Your task to perform on an android device: What's the weather today? Image 0: 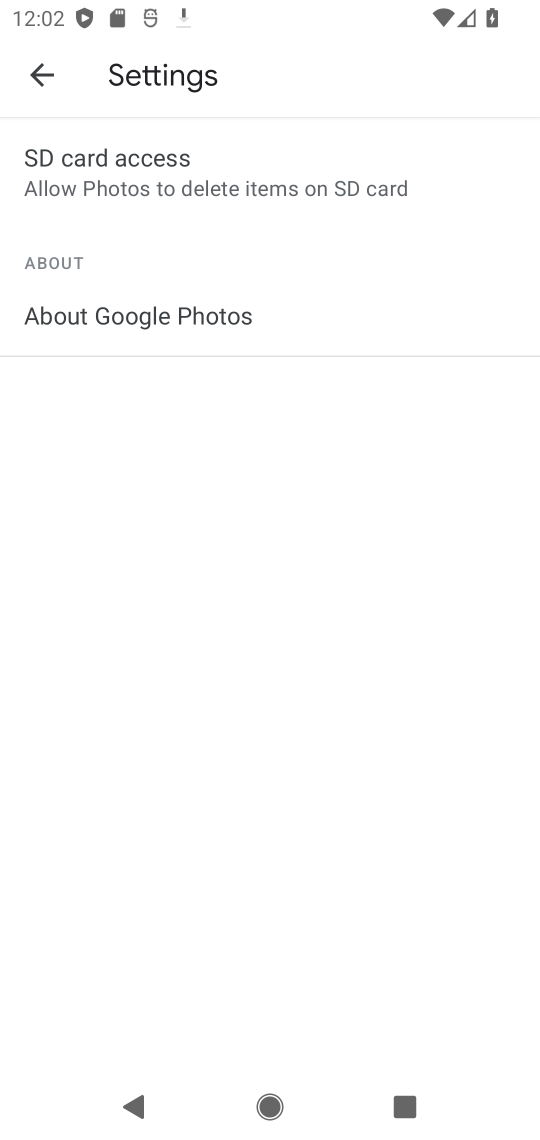
Step 0: click (137, 836)
Your task to perform on an android device: What's the weather today? Image 1: 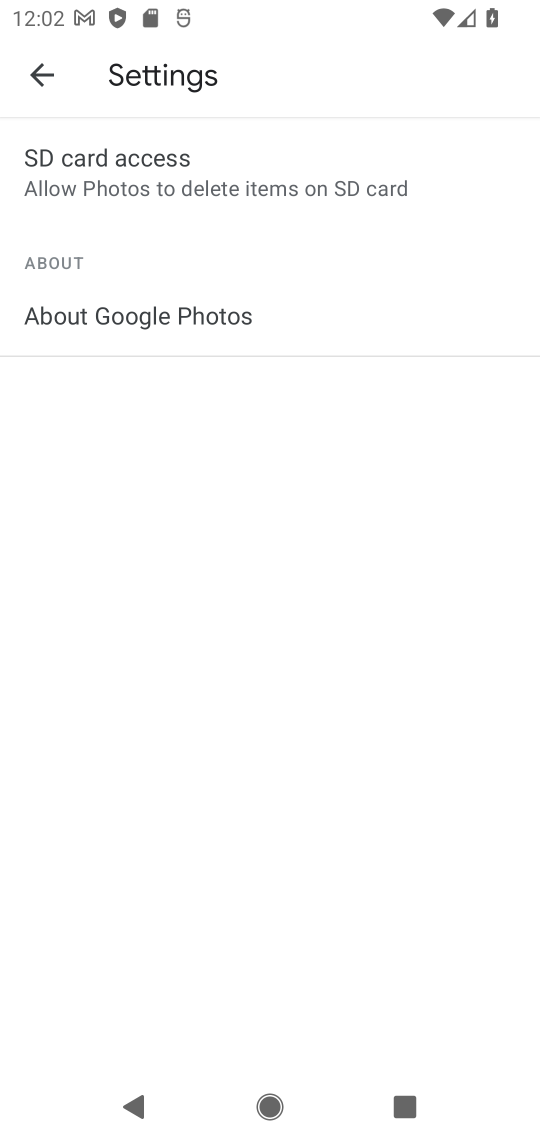
Step 1: press home button
Your task to perform on an android device: What's the weather today? Image 2: 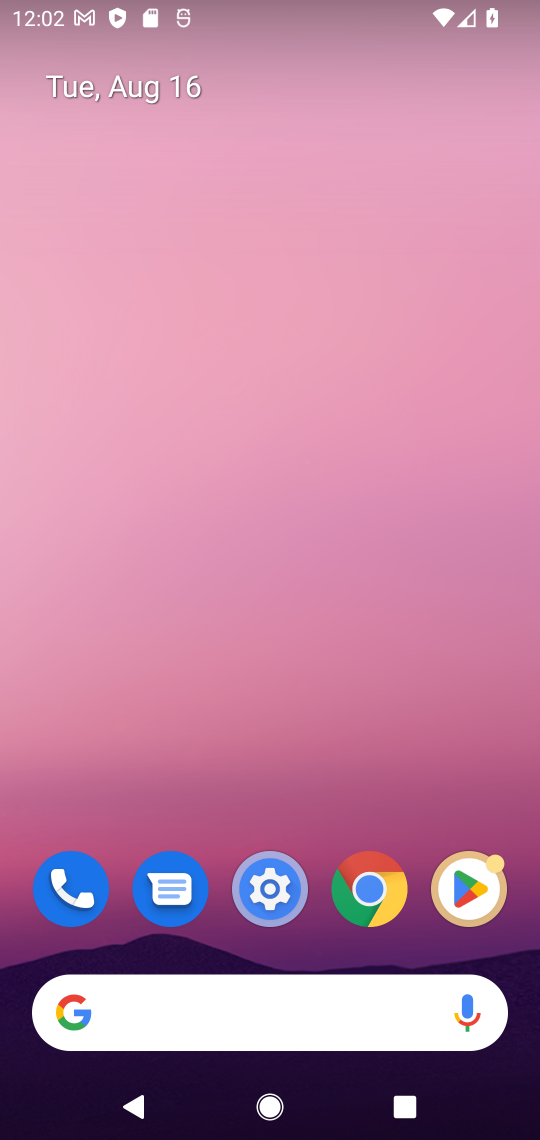
Step 2: drag from (232, 1010) to (131, 107)
Your task to perform on an android device: What's the weather today? Image 3: 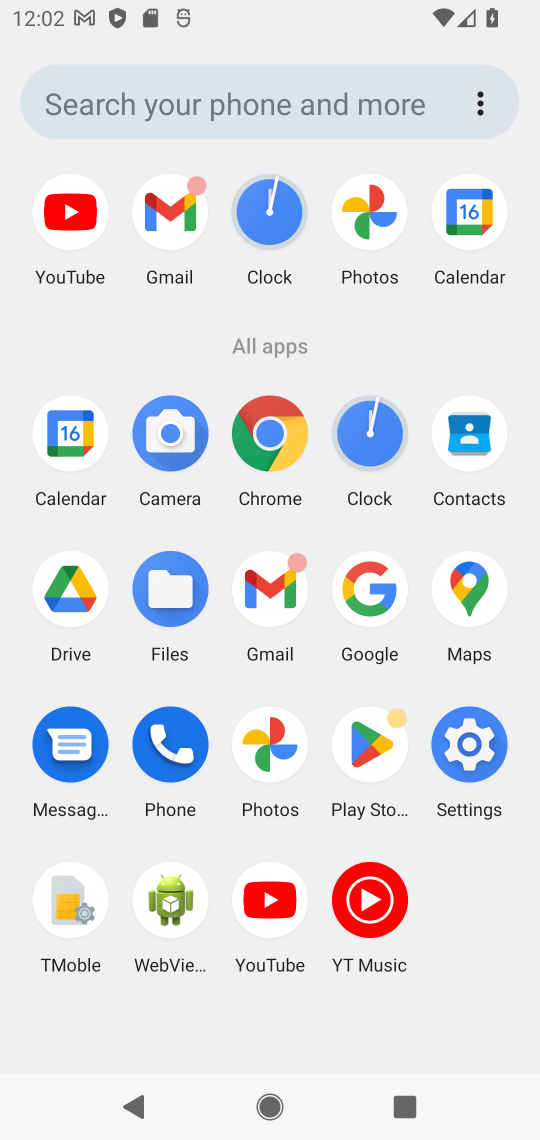
Step 3: click (365, 604)
Your task to perform on an android device: What's the weather today? Image 4: 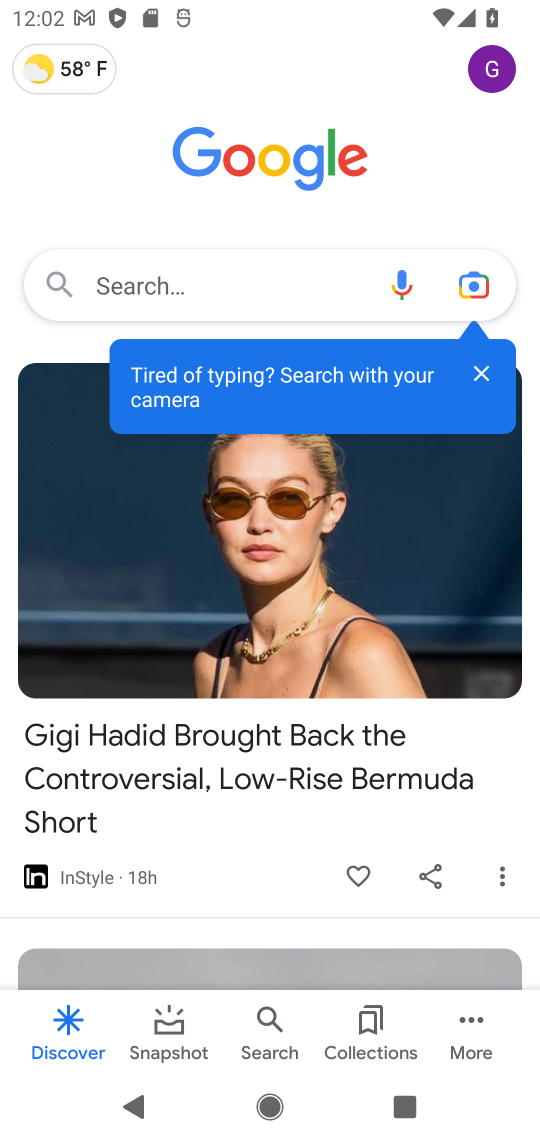
Step 4: click (100, 281)
Your task to perform on an android device: What's the weather today? Image 5: 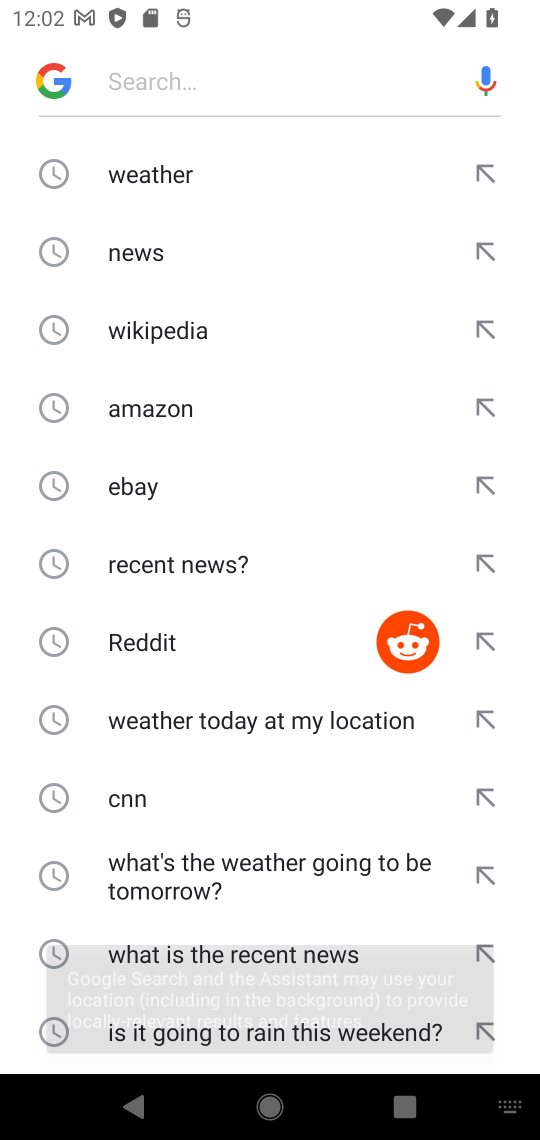
Step 5: press back button
Your task to perform on an android device: What's the weather today? Image 6: 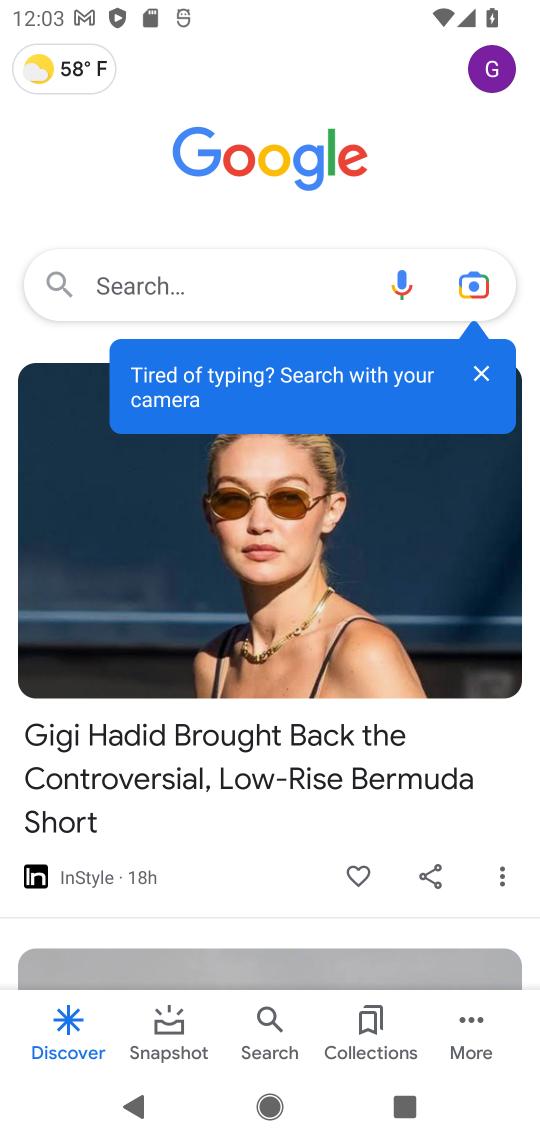
Step 6: click (47, 70)
Your task to perform on an android device: What's the weather today? Image 7: 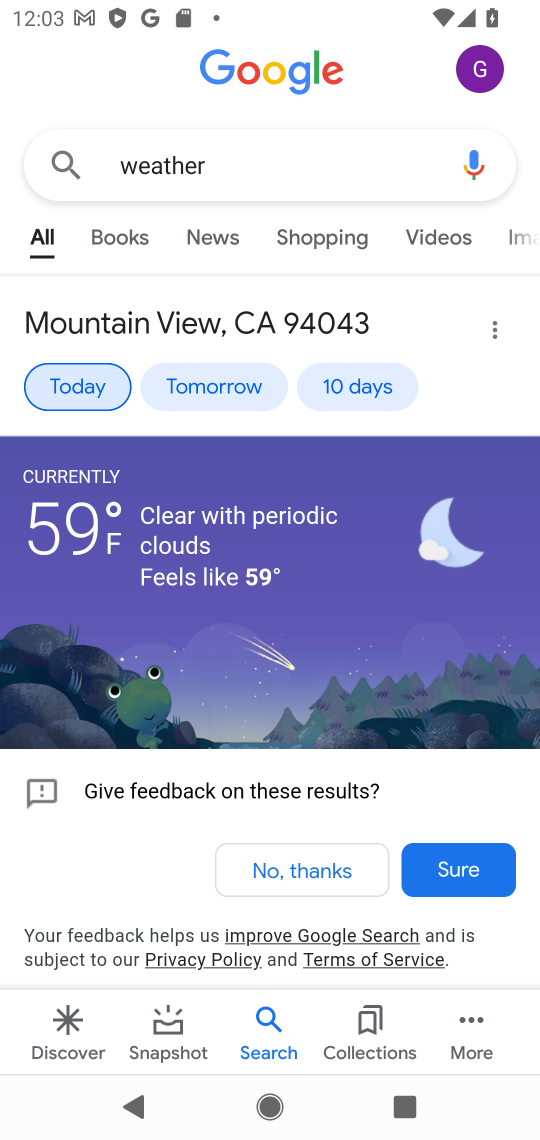
Step 7: task complete